Your task to perform on an android device: Search for Italian restaurants on Maps Image 0: 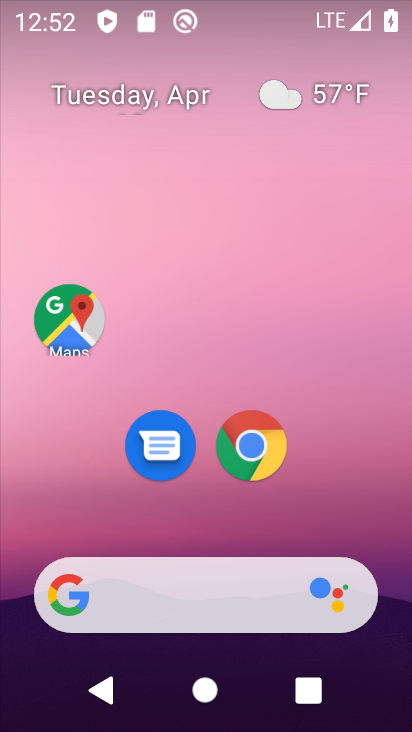
Step 0: click (74, 334)
Your task to perform on an android device: Search for Italian restaurants on Maps Image 1: 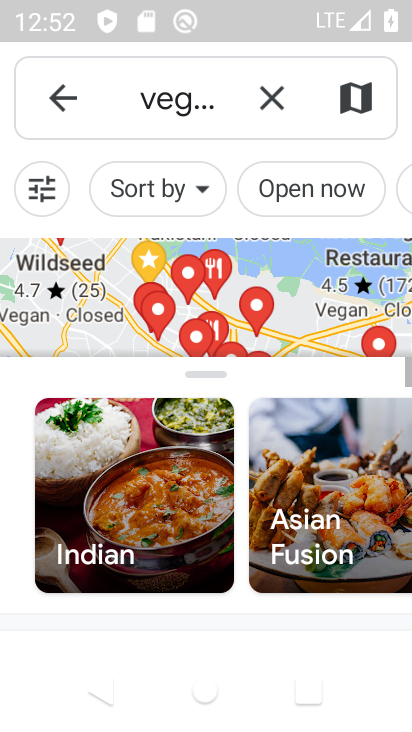
Step 1: click (276, 82)
Your task to perform on an android device: Search for Italian restaurants on Maps Image 2: 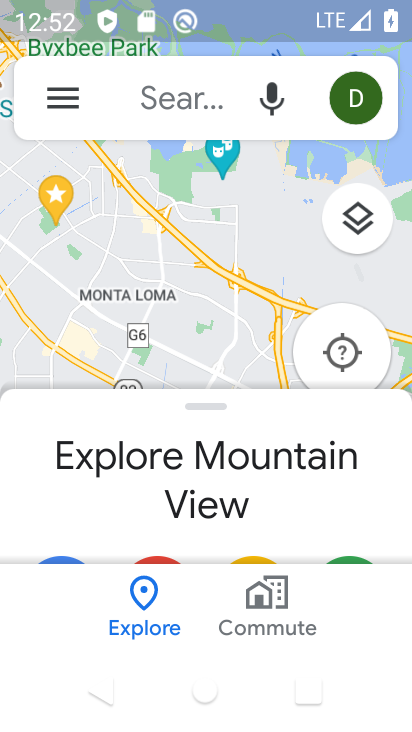
Step 2: click (216, 99)
Your task to perform on an android device: Search for Italian restaurants on Maps Image 3: 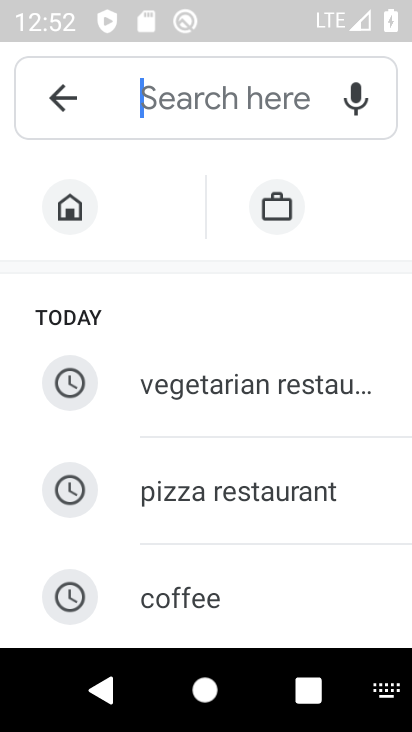
Step 3: drag from (297, 553) to (294, 249)
Your task to perform on an android device: Search for Italian restaurants on Maps Image 4: 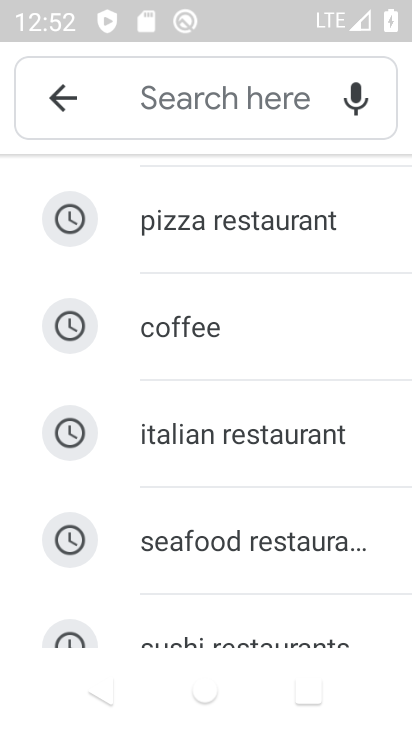
Step 4: click (283, 429)
Your task to perform on an android device: Search for Italian restaurants on Maps Image 5: 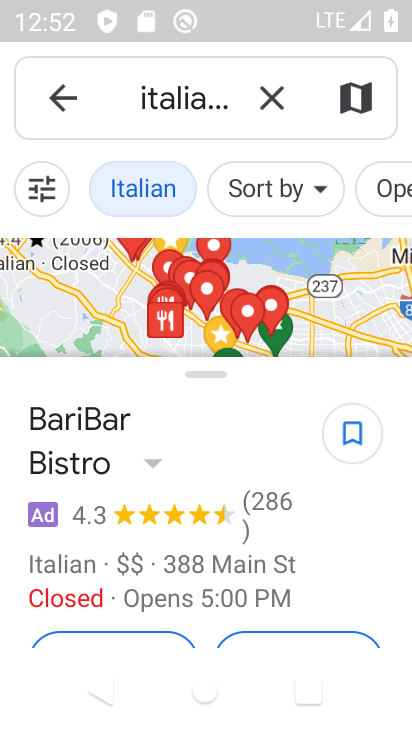
Step 5: task complete